Your task to perform on an android device: What's the weather? Image 0: 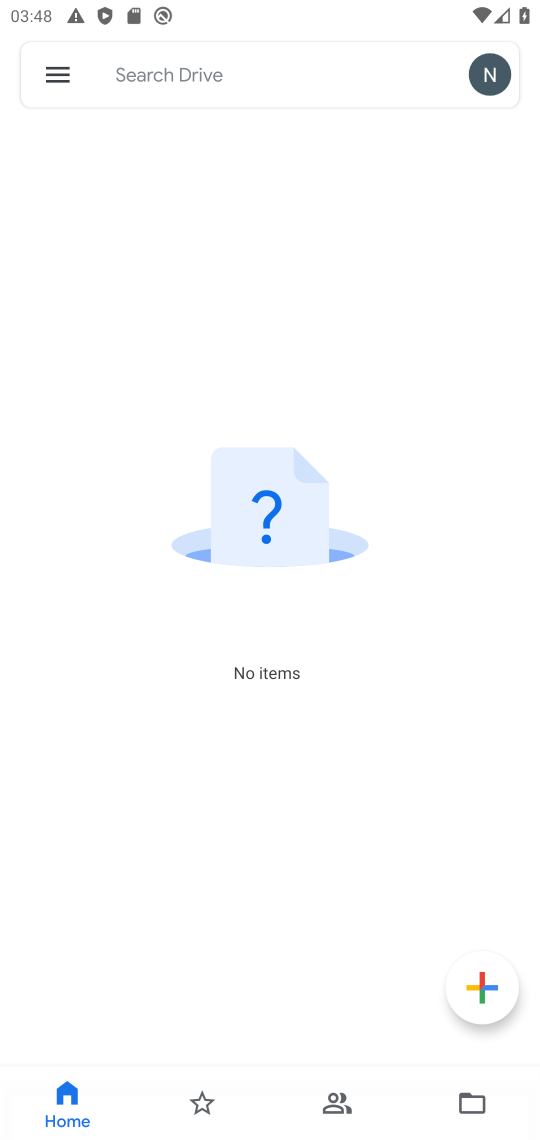
Step 0: press home button
Your task to perform on an android device: What's the weather? Image 1: 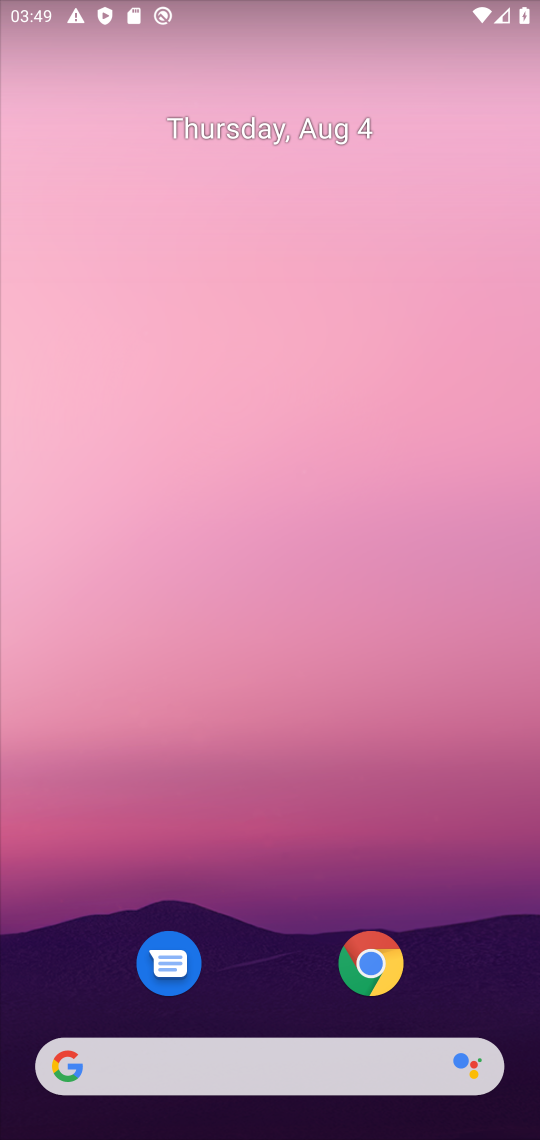
Step 1: click (192, 1080)
Your task to perform on an android device: What's the weather? Image 2: 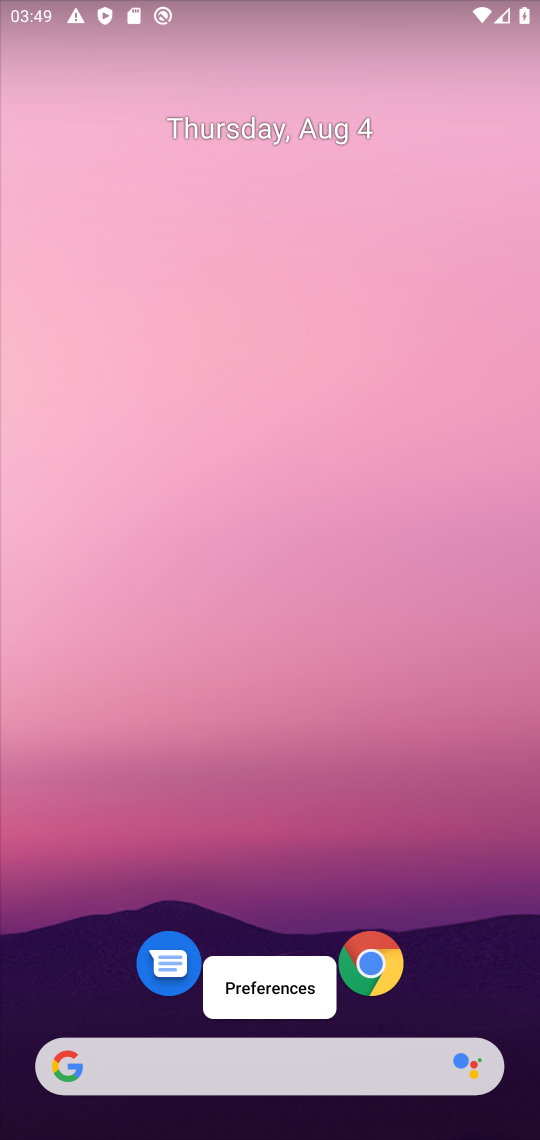
Step 2: click (192, 1080)
Your task to perform on an android device: What's the weather? Image 3: 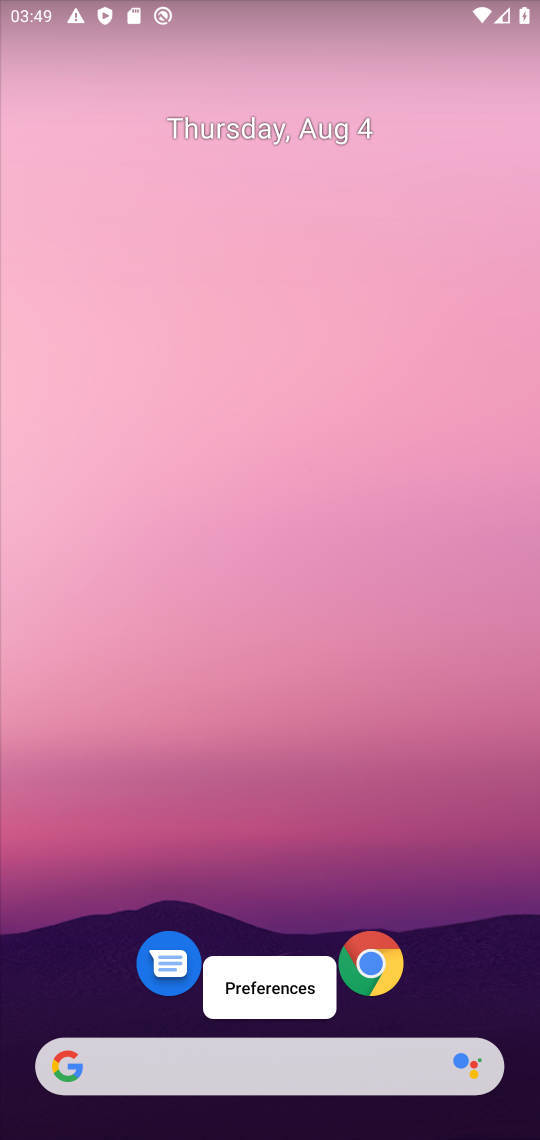
Step 3: click (171, 1058)
Your task to perform on an android device: What's the weather? Image 4: 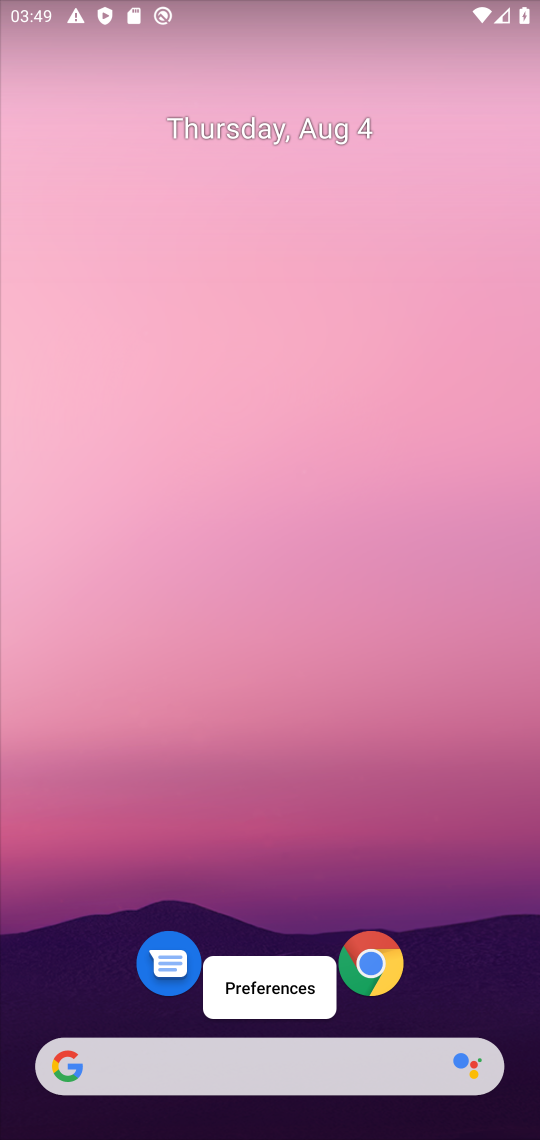
Step 4: click (171, 1057)
Your task to perform on an android device: What's the weather? Image 5: 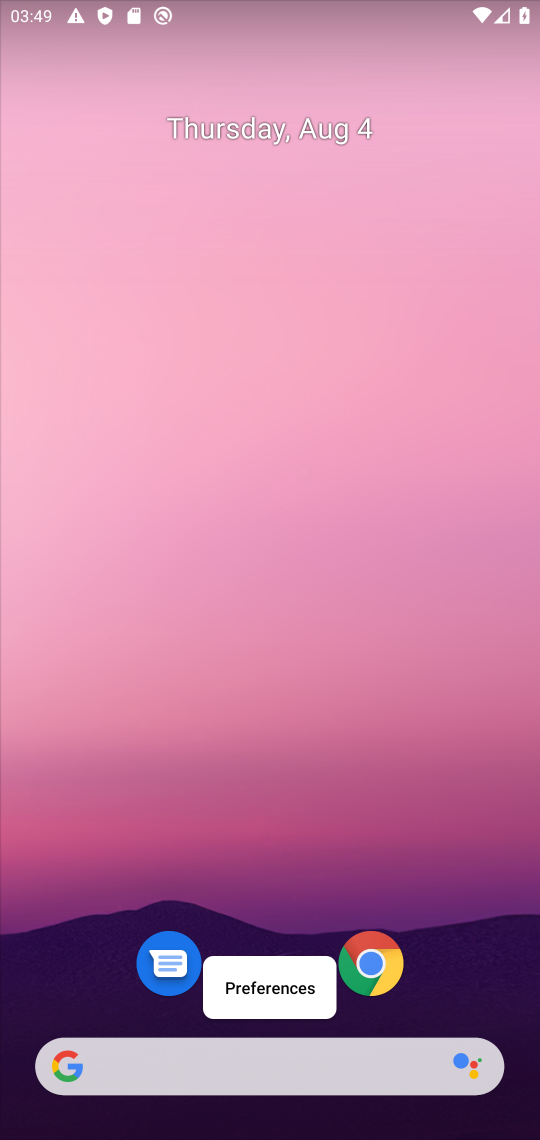
Step 5: click (135, 1067)
Your task to perform on an android device: What's the weather? Image 6: 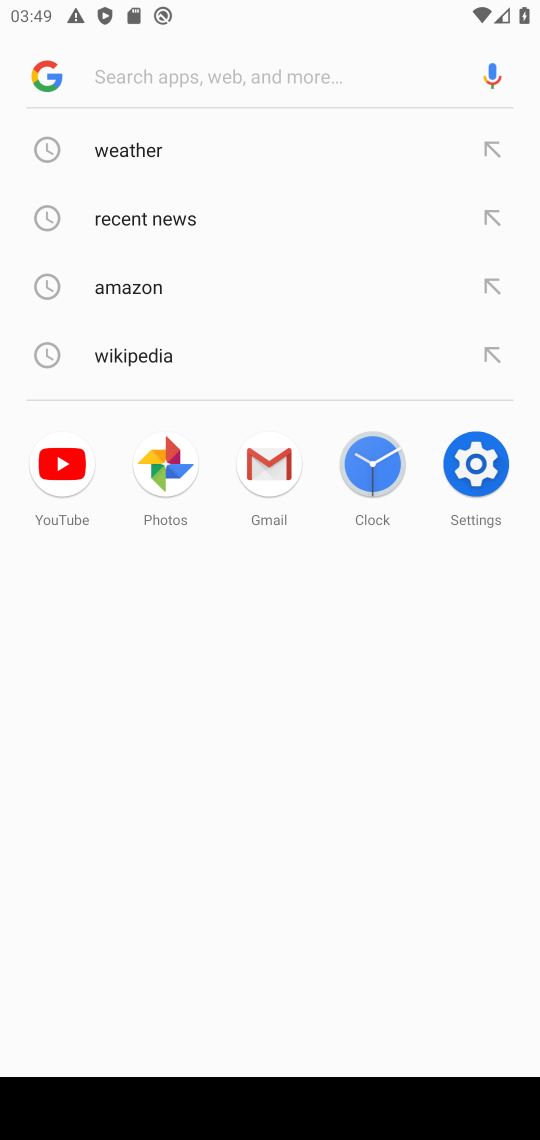
Step 6: click (126, 160)
Your task to perform on an android device: What's the weather? Image 7: 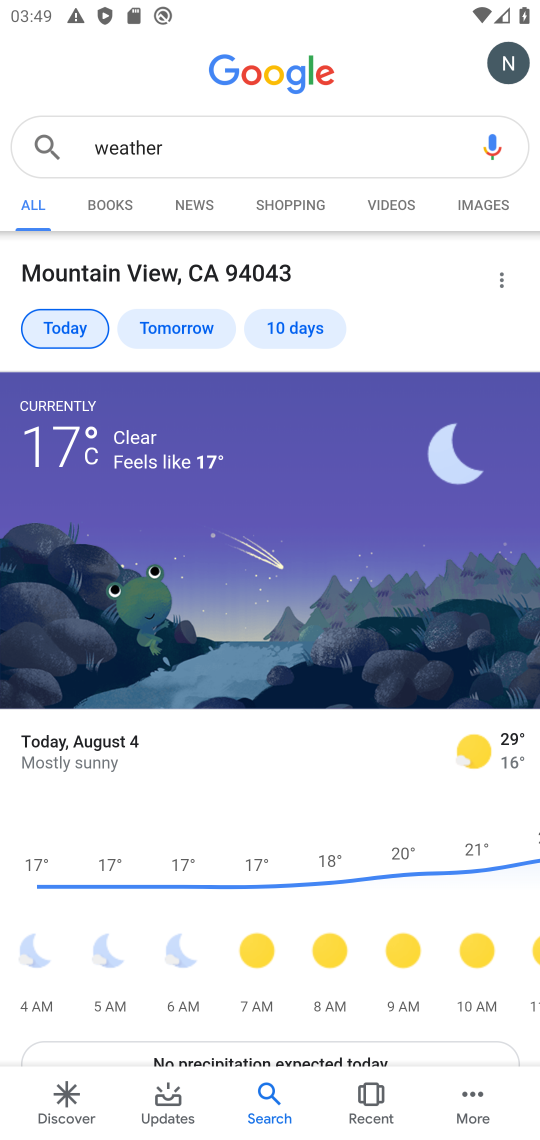
Step 7: task complete